Your task to perform on an android device: turn notification dots on Image 0: 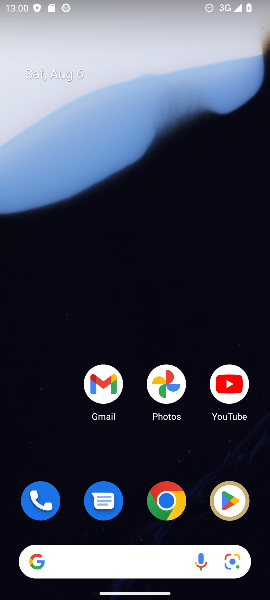
Step 0: drag from (127, 514) to (166, 179)
Your task to perform on an android device: turn notification dots on Image 1: 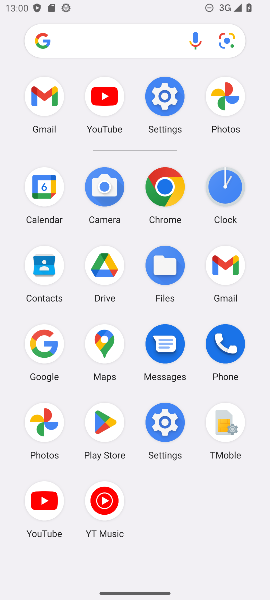
Step 1: click (166, 420)
Your task to perform on an android device: turn notification dots on Image 2: 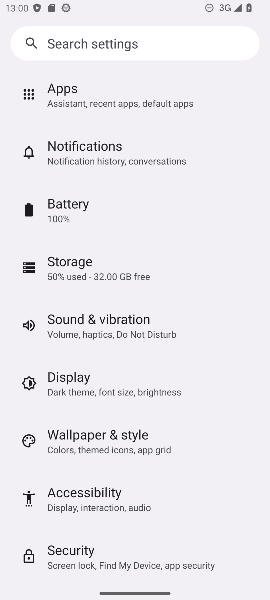
Step 2: click (104, 158)
Your task to perform on an android device: turn notification dots on Image 3: 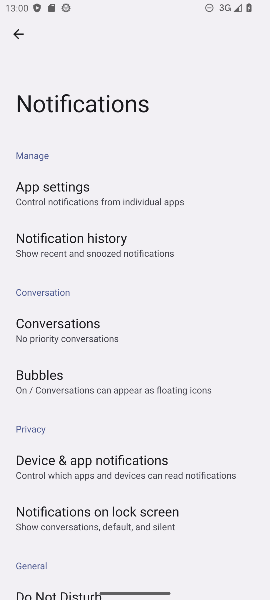
Step 3: drag from (104, 510) to (169, 299)
Your task to perform on an android device: turn notification dots on Image 4: 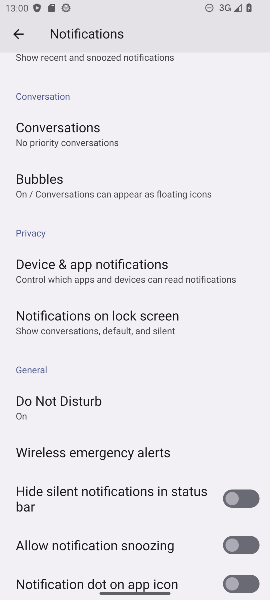
Step 4: click (258, 582)
Your task to perform on an android device: turn notification dots on Image 5: 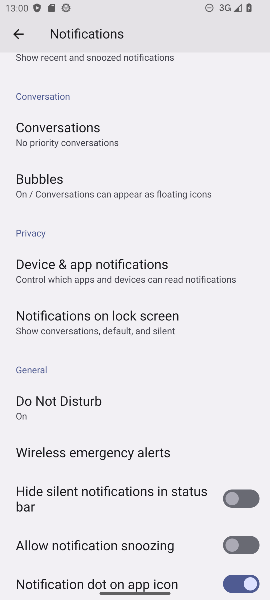
Step 5: task complete